Your task to perform on an android device: Search for "razer blackwidow" on costco, select the first entry, and add it to the cart. Image 0: 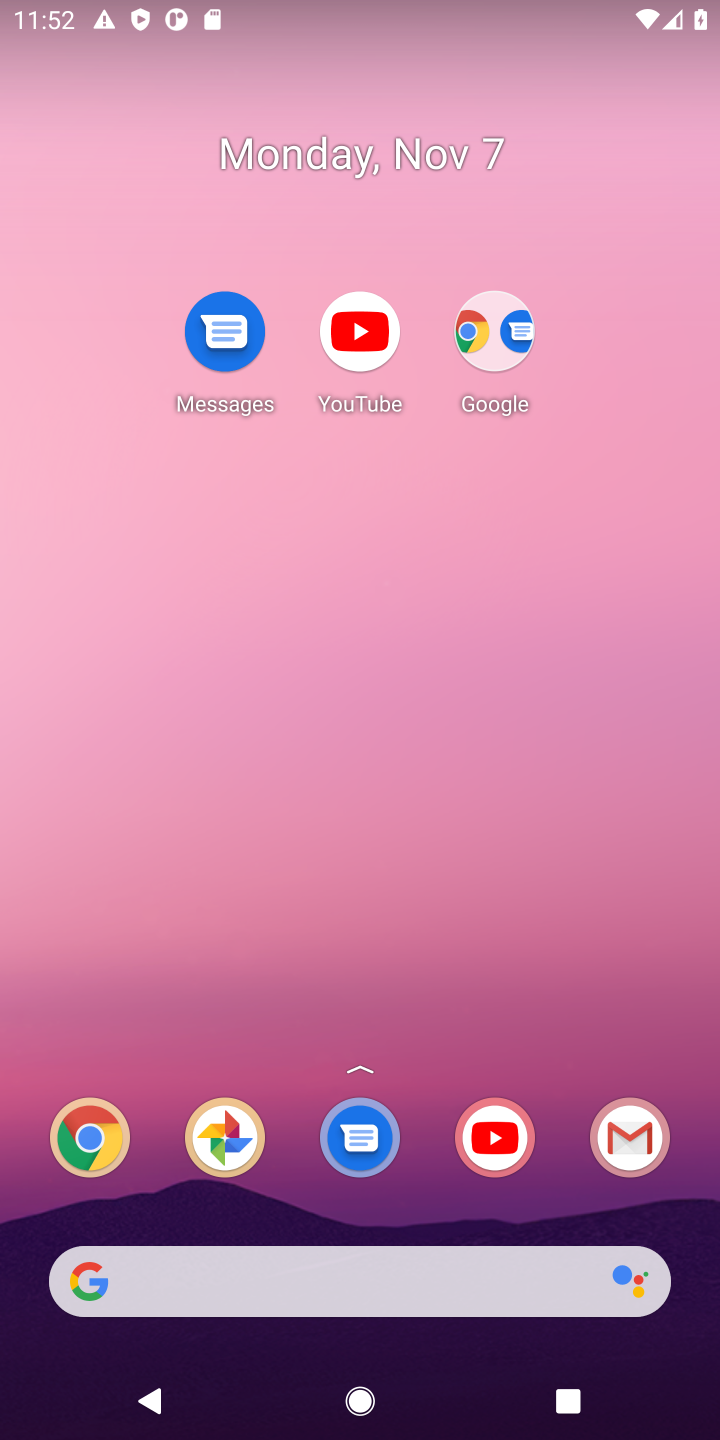
Step 0: drag from (420, 1055) to (404, 11)
Your task to perform on an android device: Search for "razer blackwidow" on costco, select the first entry, and add it to the cart. Image 1: 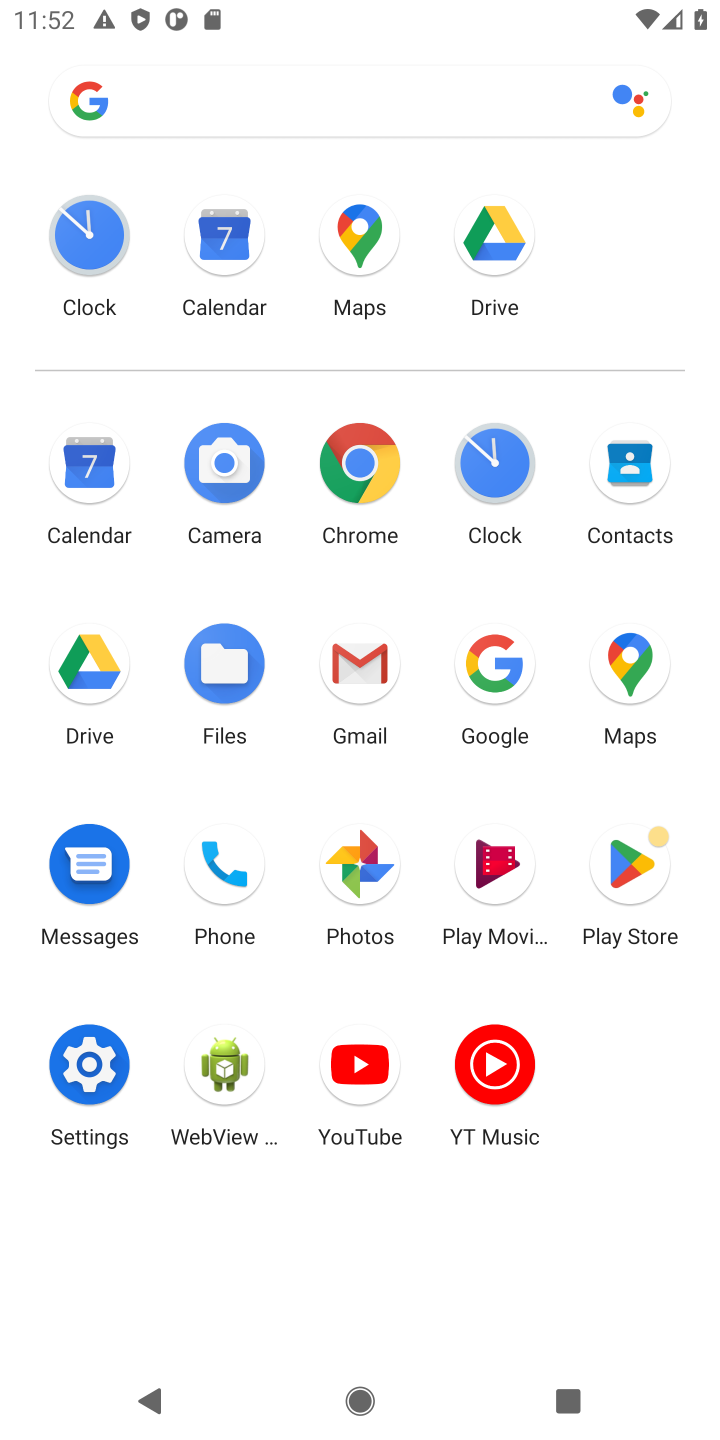
Step 1: click (347, 479)
Your task to perform on an android device: Search for "razer blackwidow" on costco, select the first entry, and add it to the cart. Image 2: 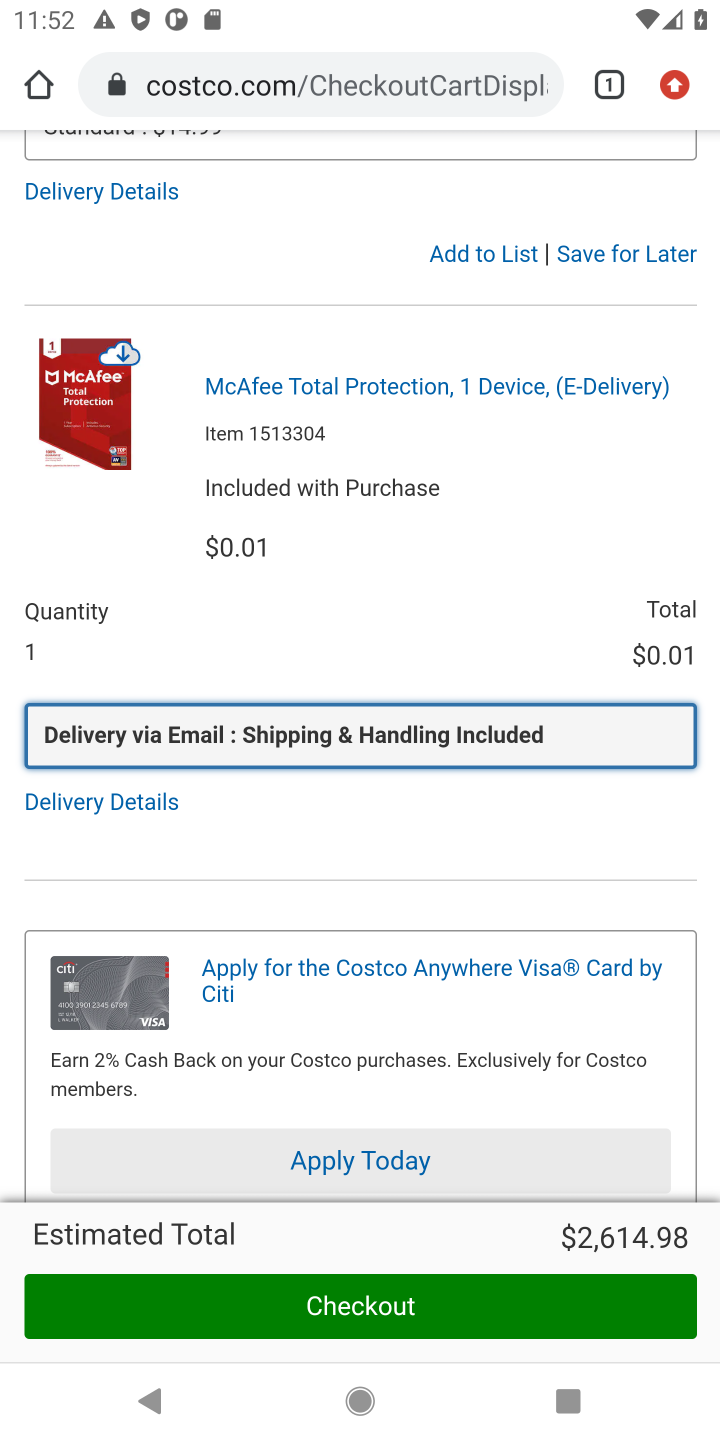
Step 2: task complete